Your task to perform on an android device: What's the weather like in Tokyo? Image 0: 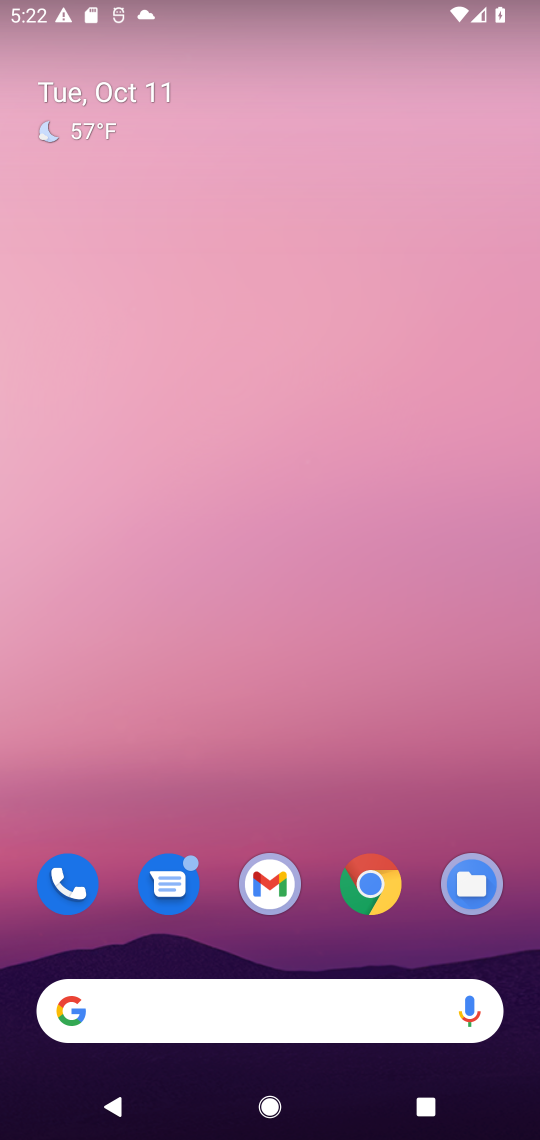
Step 0: drag from (303, 961) to (242, 277)
Your task to perform on an android device: What's the weather like in Tokyo? Image 1: 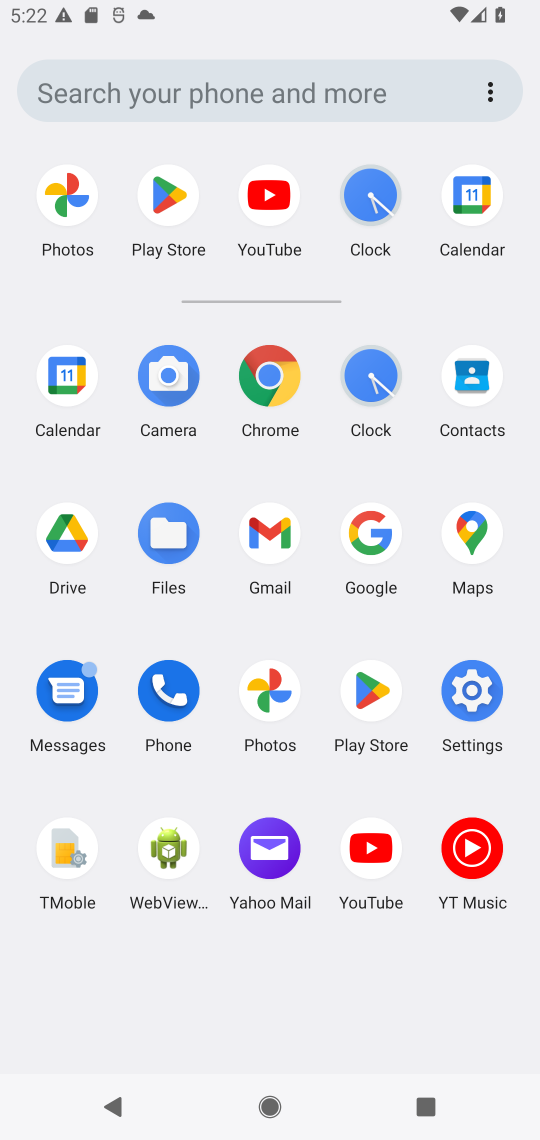
Step 1: click (370, 538)
Your task to perform on an android device: What's the weather like in Tokyo? Image 2: 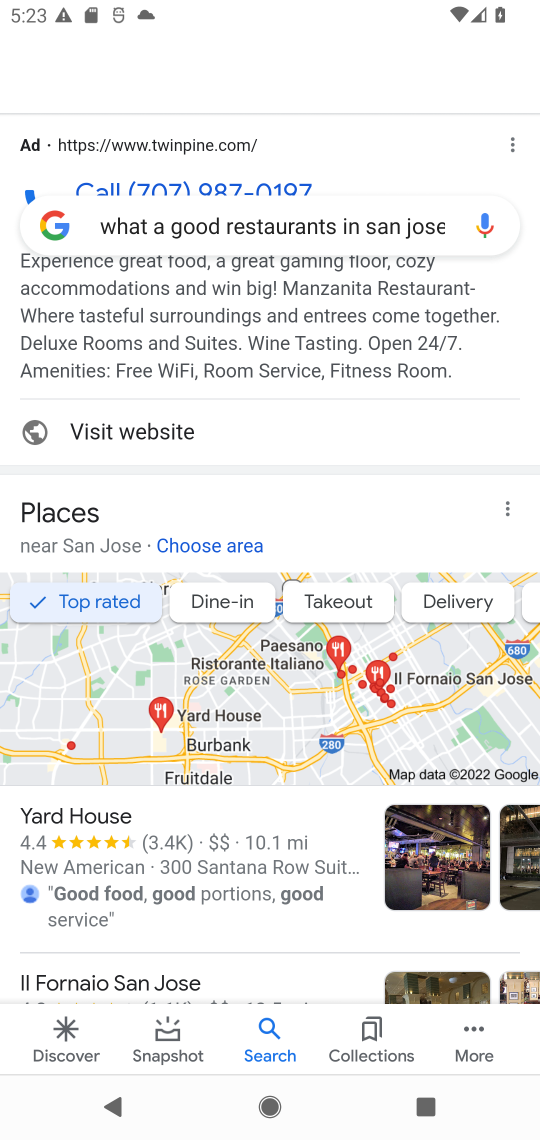
Step 2: drag from (220, 112) to (269, 320)
Your task to perform on an android device: What's the weather like in Tokyo? Image 3: 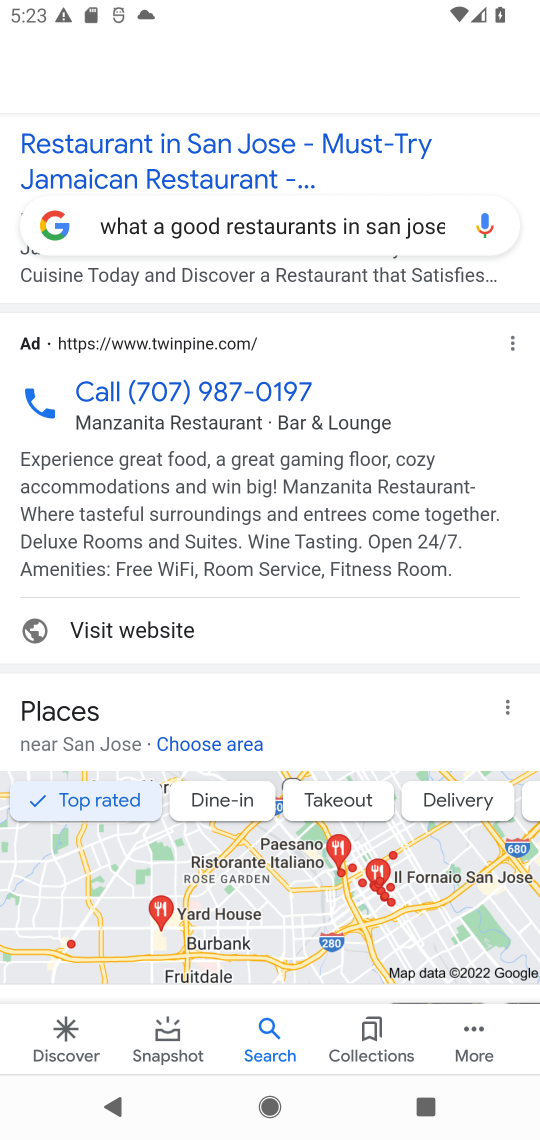
Step 3: click (267, 228)
Your task to perform on an android device: What's the weather like in Tokyo? Image 4: 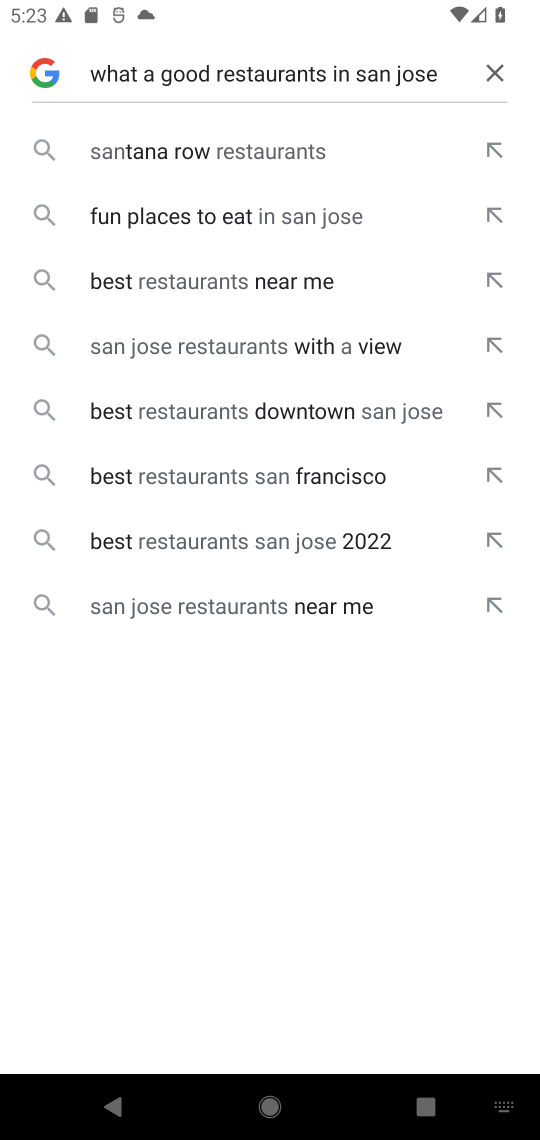
Step 4: click (495, 76)
Your task to perform on an android device: What's the weather like in Tokyo? Image 5: 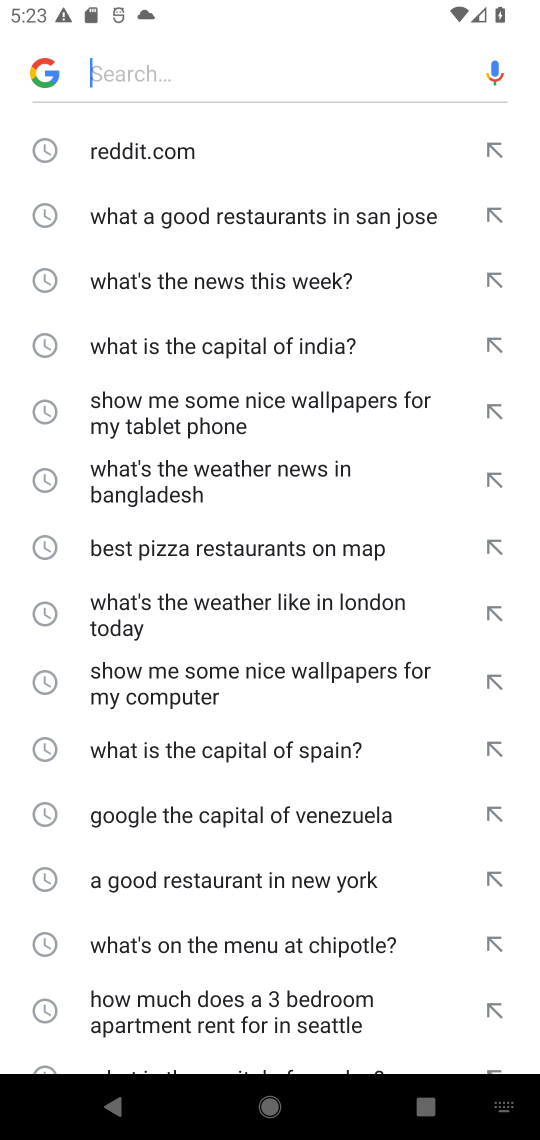
Step 5: type "What's the weather like in Tokyo?"
Your task to perform on an android device: What's the weather like in Tokyo? Image 6: 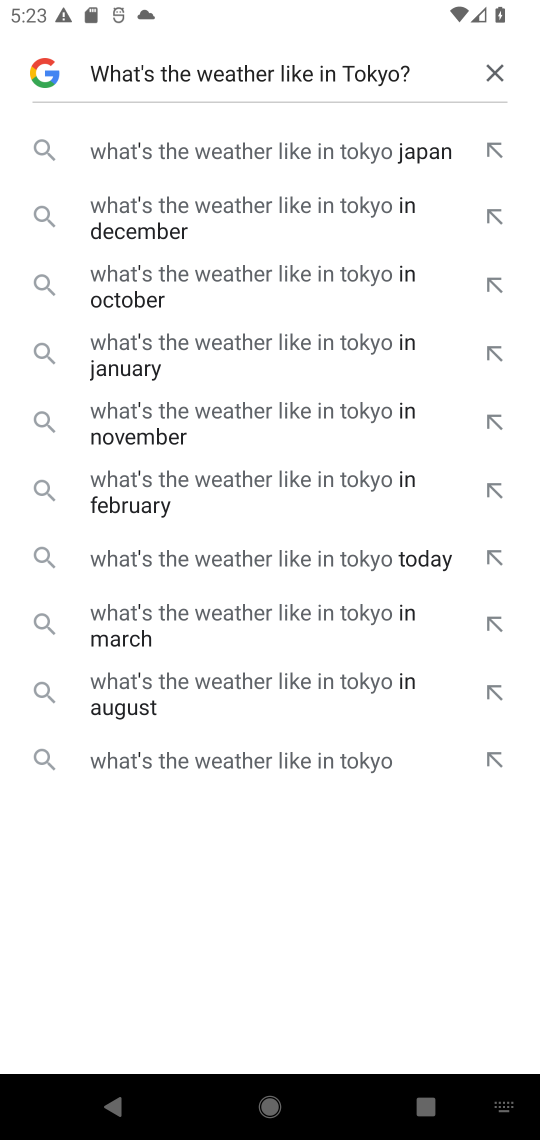
Step 6: click (197, 763)
Your task to perform on an android device: What's the weather like in Tokyo? Image 7: 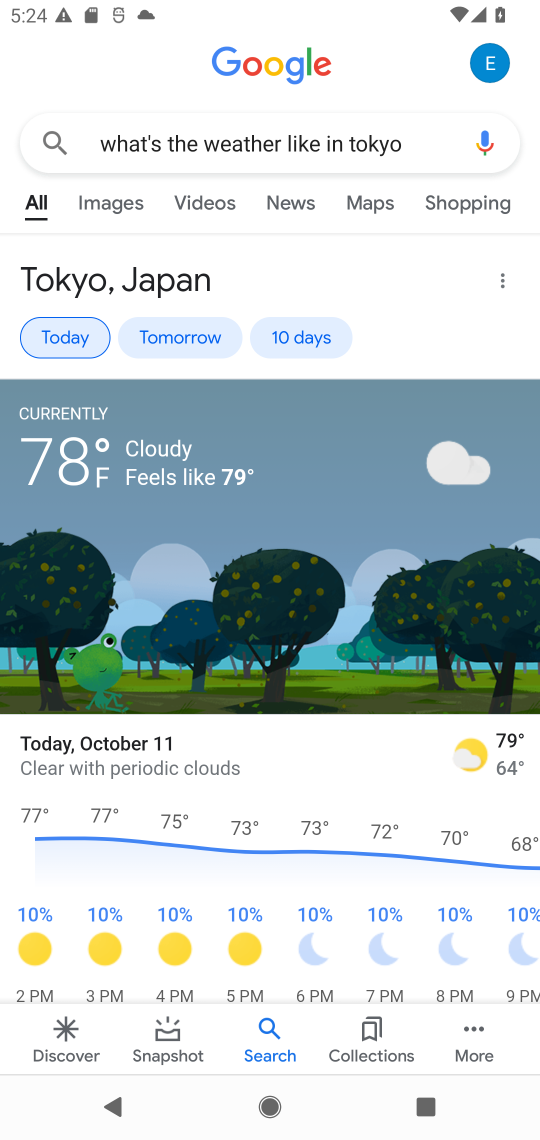
Step 7: task complete